Your task to perform on an android device: read, delete, or share a saved page in the chrome app Image 0: 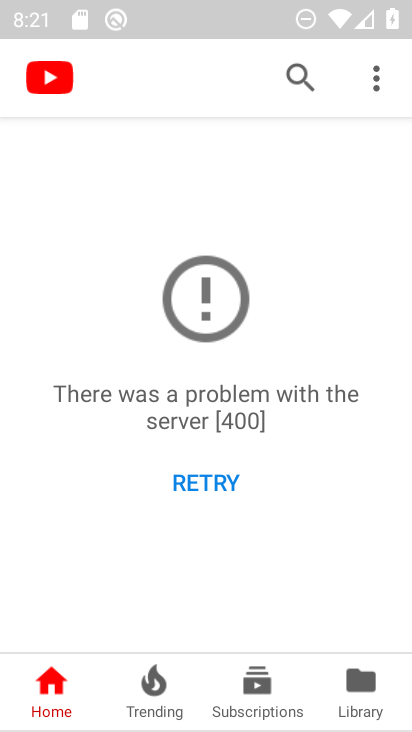
Step 0: press back button
Your task to perform on an android device: read, delete, or share a saved page in the chrome app Image 1: 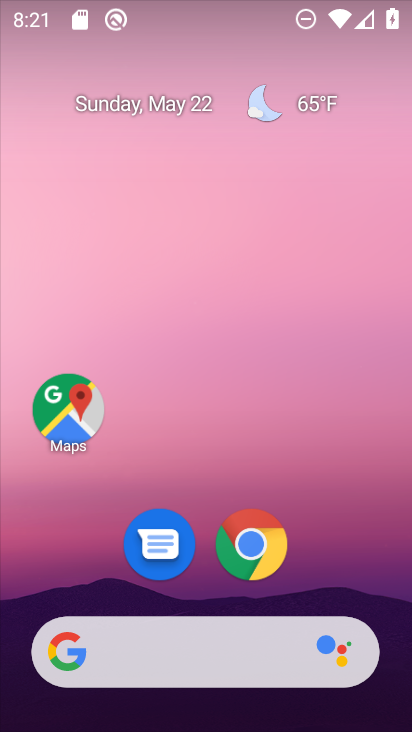
Step 1: drag from (261, 558) to (307, 558)
Your task to perform on an android device: read, delete, or share a saved page in the chrome app Image 2: 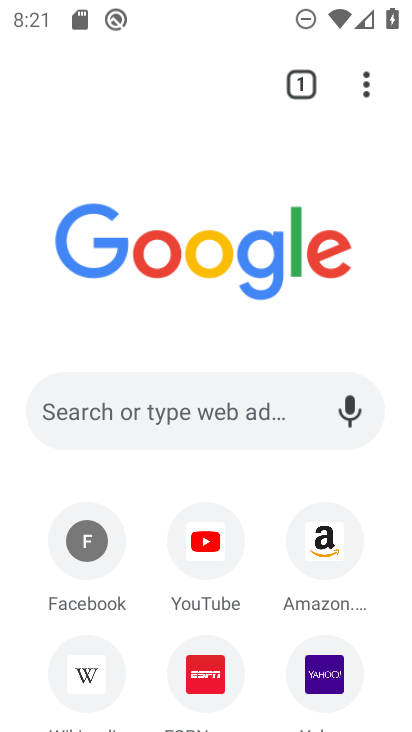
Step 2: click (364, 87)
Your task to perform on an android device: read, delete, or share a saved page in the chrome app Image 3: 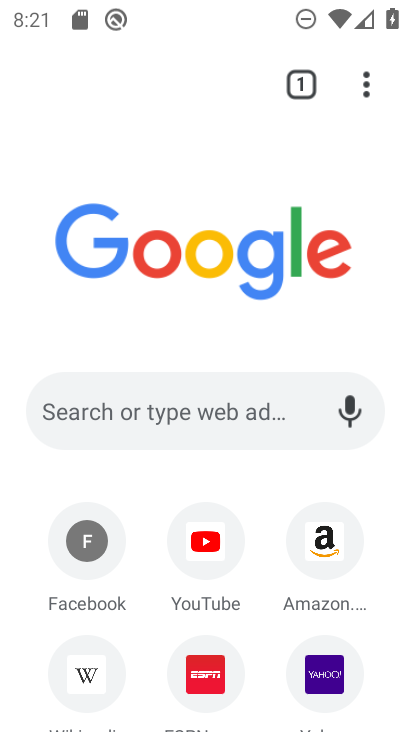
Step 3: click (369, 73)
Your task to perform on an android device: read, delete, or share a saved page in the chrome app Image 4: 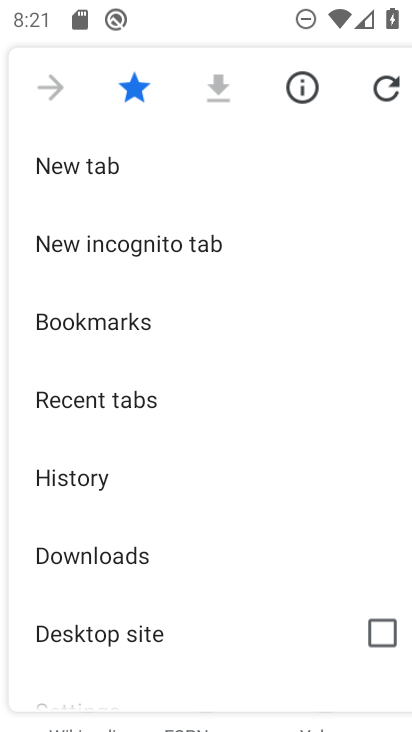
Step 4: drag from (262, 620) to (306, 371)
Your task to perform on an android device: read, delete, or share a saved page in the chrome app Image 5: 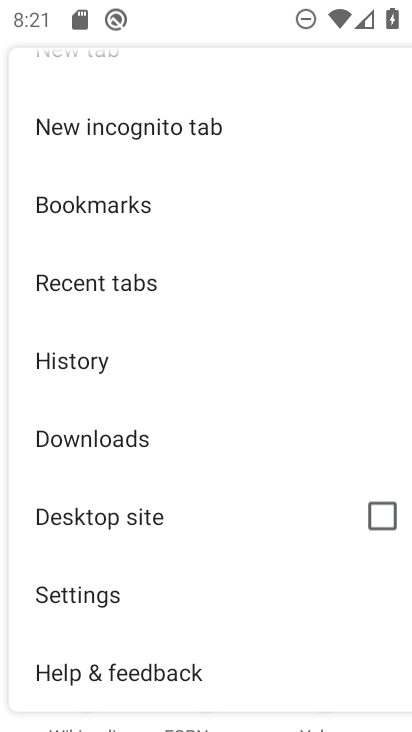
Step 5: click (70, 436)
Your task to perform on an android device: read, delete, or share a saved page in the chrome app Image 6: 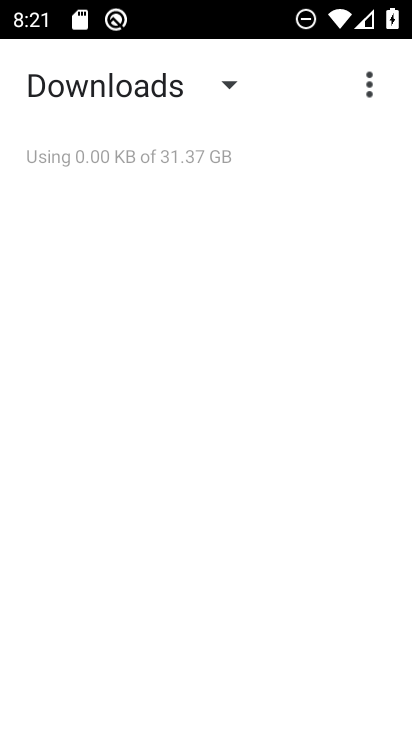
Step 6: task complete